Your task to perform on an android device: Go to display settings Image 0: 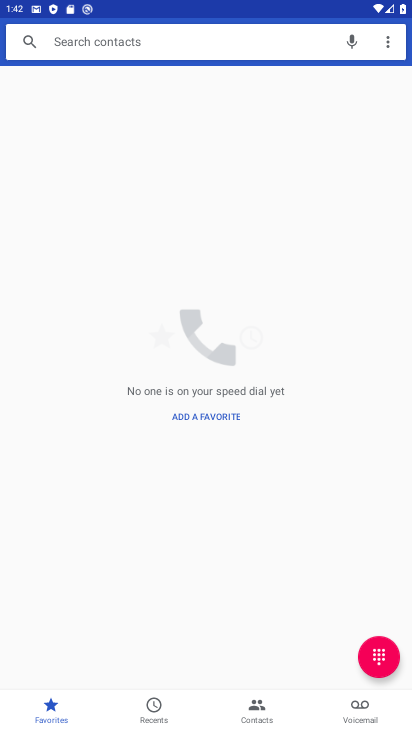
Step 0: press home button
Your task to perform on an android device: Go to display settings Image 1: 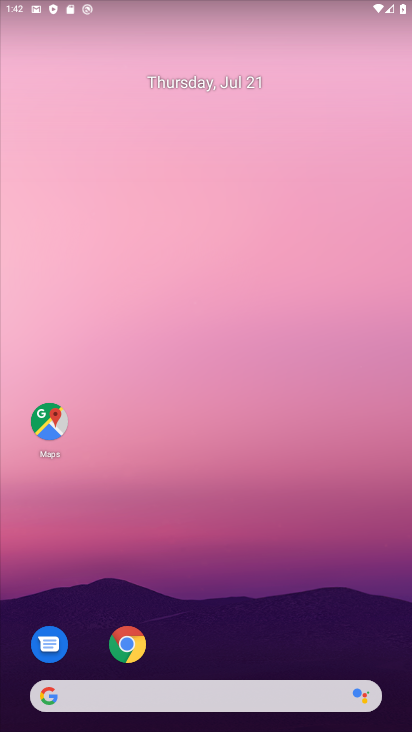
Step 1: drag from (265, 636) to (202, 135)
Your task to perform on an android device: Go to display settings Image 2: 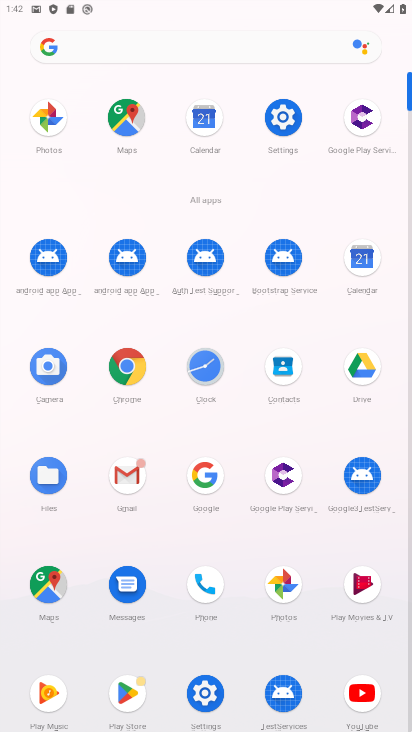
Step 2: click (281, 120)
Your task to perform on an android device: Go to display settings Image 3: 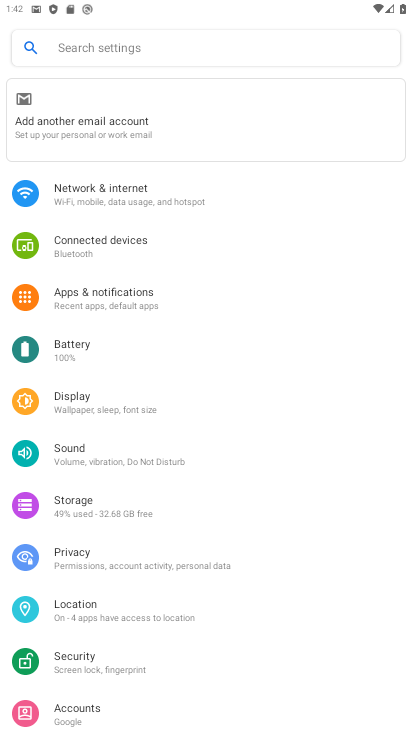
Step 3: click (102, 410)
Your task to perform on an android device: Go to display settings Image 4: 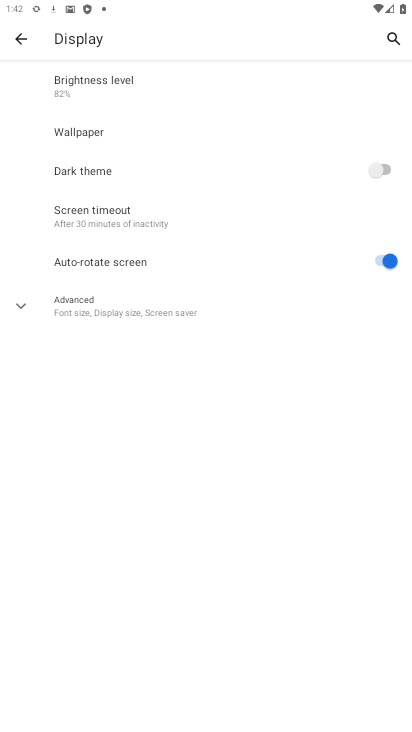
Step 4: task complete